Your task to perform on an android device: Search for seafood restaurants on Google Maps Image 0: 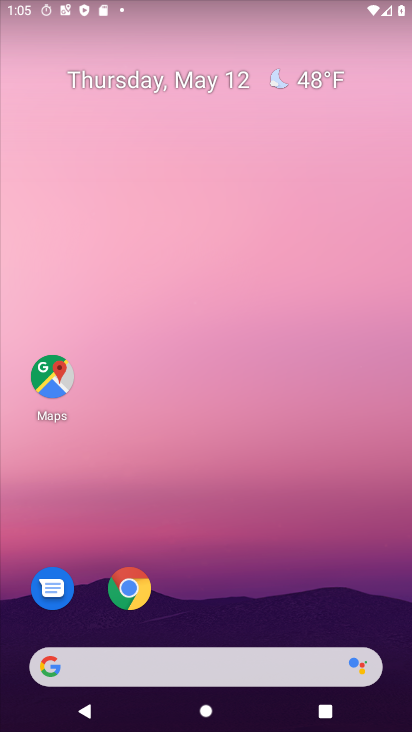
Step 0: drag from (224, 607) to (247, 550)
Your task to perform on an android device: Search for seafood restaurants on Google Maps Image 1: 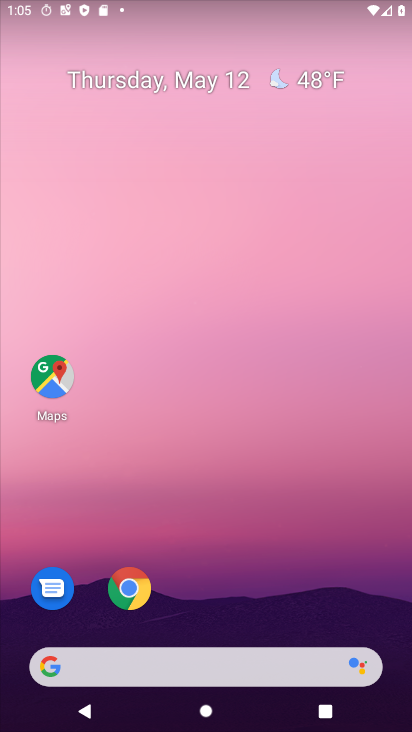
Step 1: click (53, 376)
Your task to perform on an android device: Search for seafood restaurants on Google Maps Image 2: 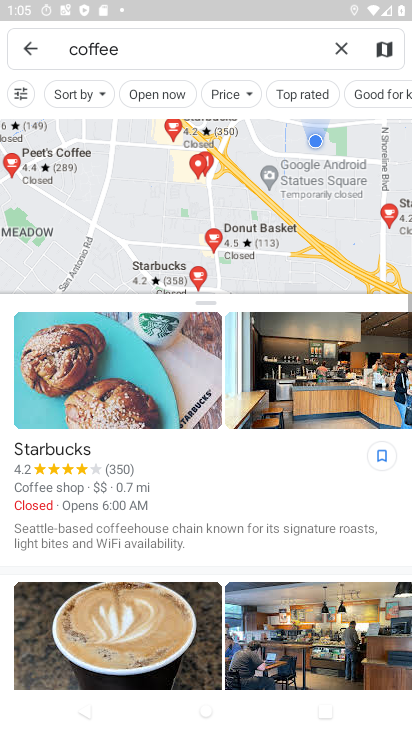
Step 2: click (337, 47)
Your task to perform on an android device: Search for seafood restaurants on Google Maps Image 3: 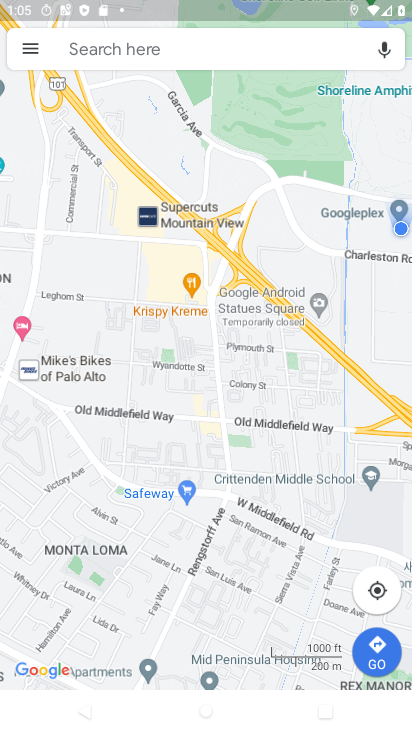
Step 3: click (191, 54)
Your task to perform on an android device: Search for seafood restaurants on Google Maps Image 4: 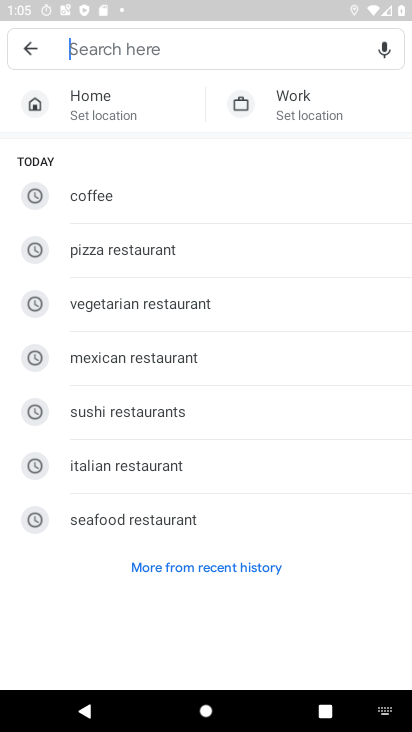
Step 4: click (153, 523)
Your task to perform on an android device: Search for seafood restaurants on Google Maps Image 5: 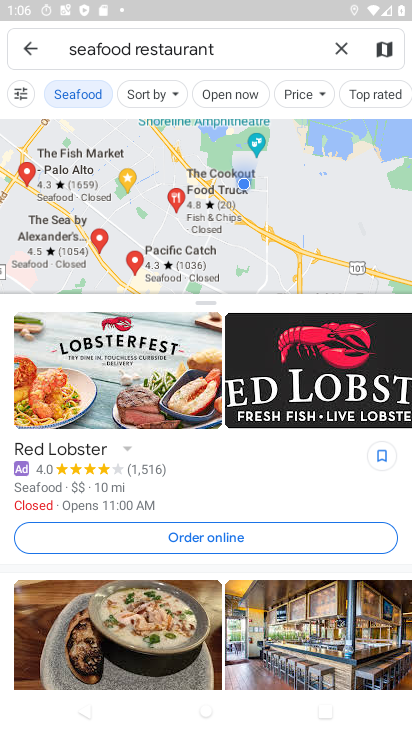
Step 5: task complete